Your task to perform on an android device: Open accessibility settings Image 0: 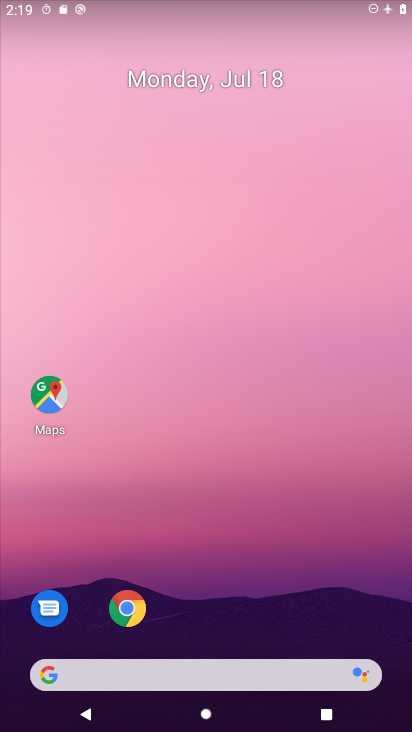
Step 0: drag from (236, 726) to (236, 265)
Your task to perform on an android device: Open accessibility settings Image 1: 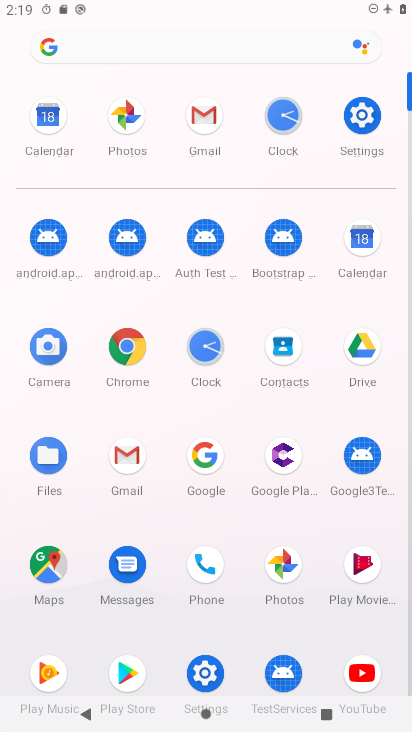
Step 1: click (359, 111)
Your task to perform on an android device: Open accessibility settings Image 2: 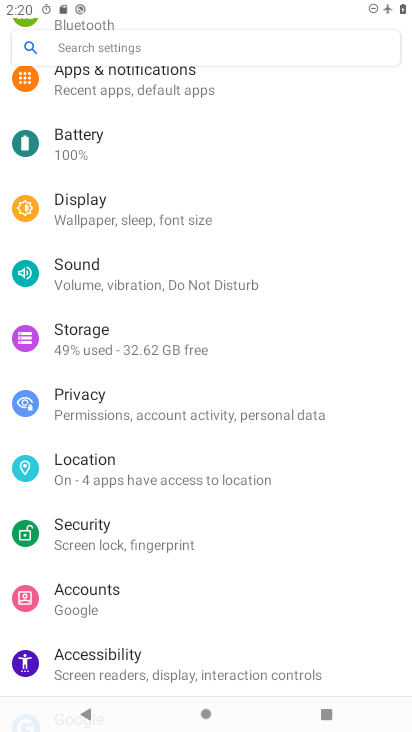
Step 2: click (89, 662)
Your task to perform on an android device: Open accessibility settings Image 3: 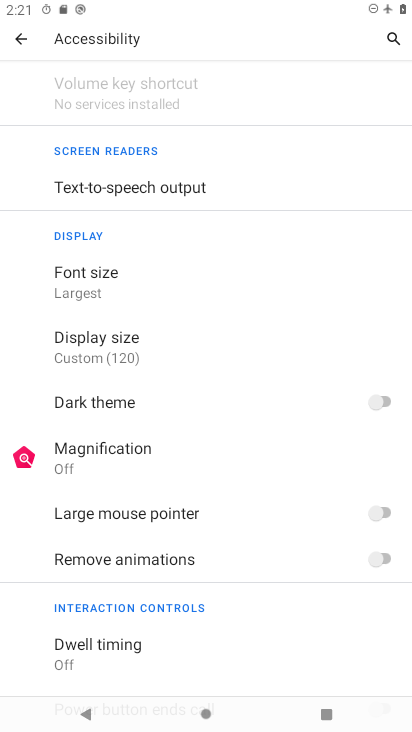
Step 3: task complete